Your task to perform on an android device: Is it going to rain tomorrow? Image 0: 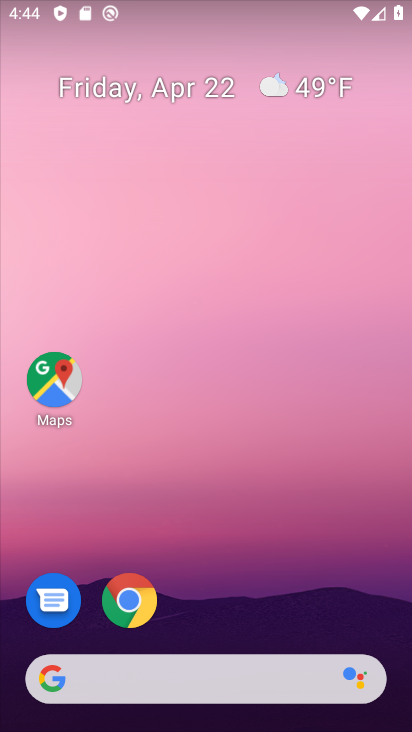
Step 0: drag from (235, 607) to (228, 46)
Your task to perform on an android device: Is it going to rain tomorrow? Image 1: 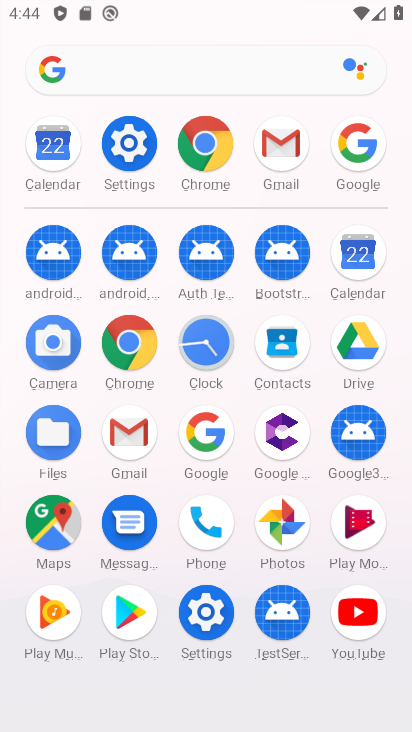
Step 1: click (363, 139)
Your task to perform on an android device: Is it going to rain tomorrow? Image 2: 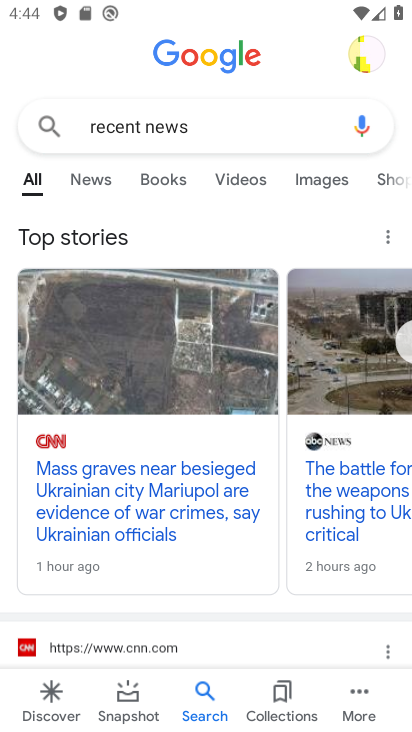
Step 2: click (269, 129)
Your task to perform on an android device: Is it going to rain tomorrow? Image 3: 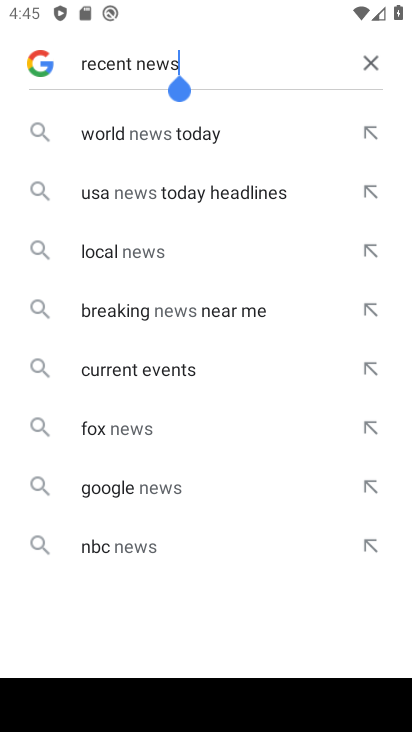
Step 3: click (372, 62)
Your task to perform on an android device: Is it going to rain tomorrow? Image 4: 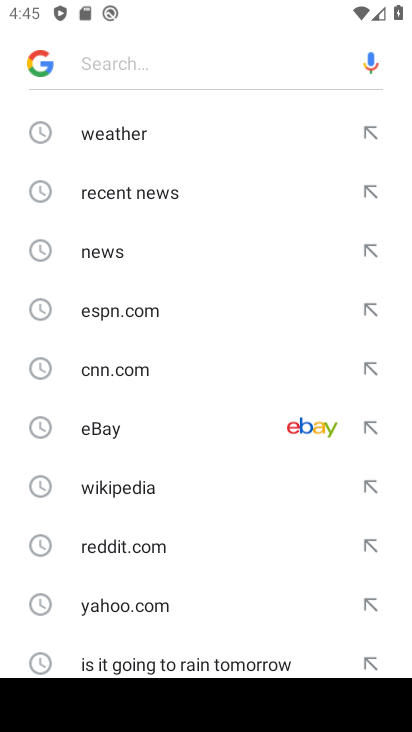
Step 4: click (191, 662)
Your task to perform on an android device: Is it going to rain tomorrow? Image 5: 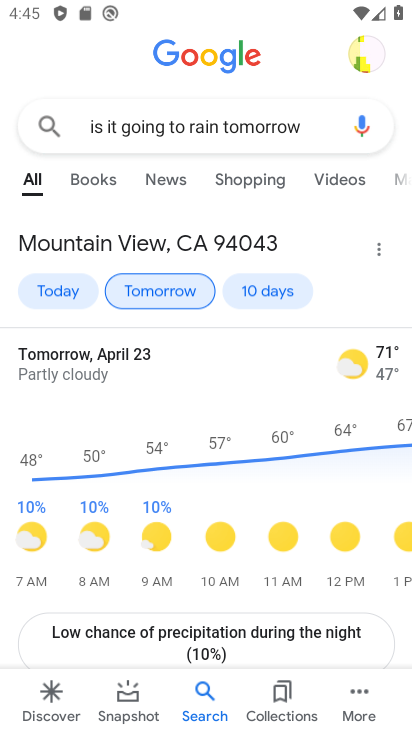
Step 5: task complete